Your task to perform on an android device: Open Yahoo.com Image 0: 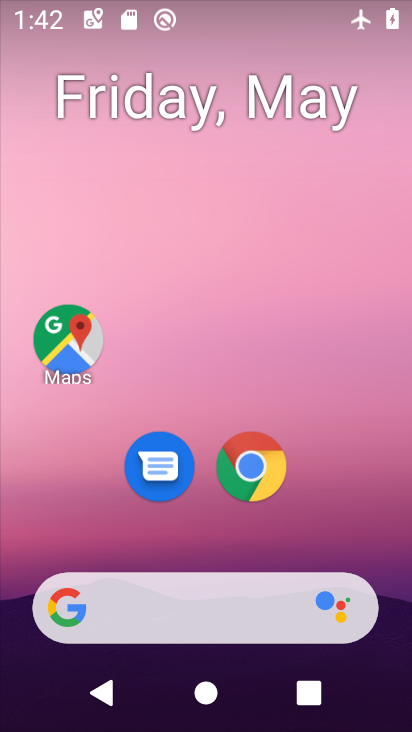
Step 0: drag from (353, 513) to (396, 11)
Your task to perform on an android device: Open Yahoo.com Image 1: 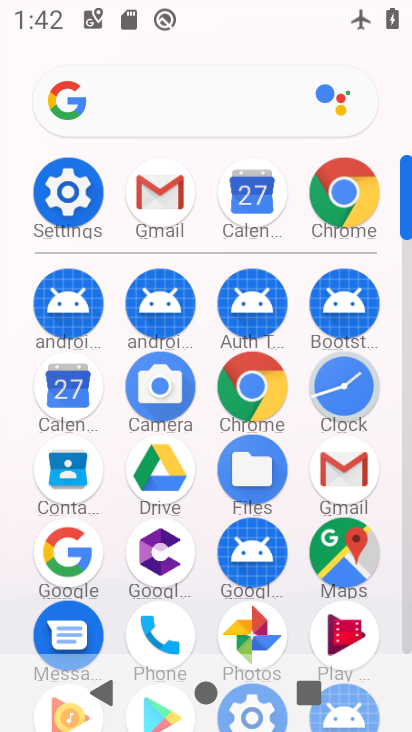
Step 1: click (351, 201)
Your task to perform on an android device: Open Yahoo.com Image 2: 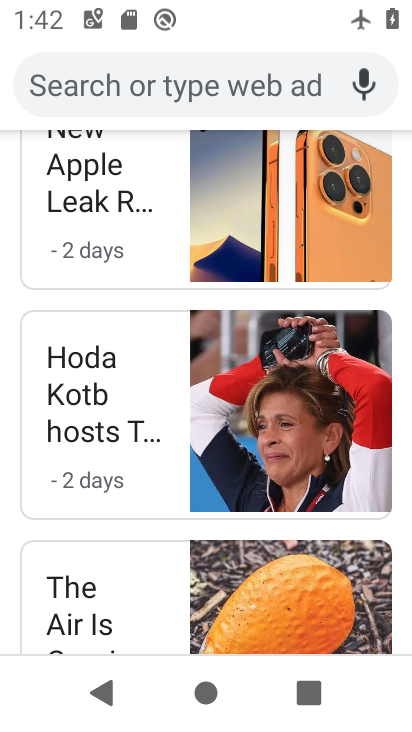
Step 2: drag from (108, 173) to (122, 640)
Your task to perform on an android device: Open Yahoo.com Image 3: 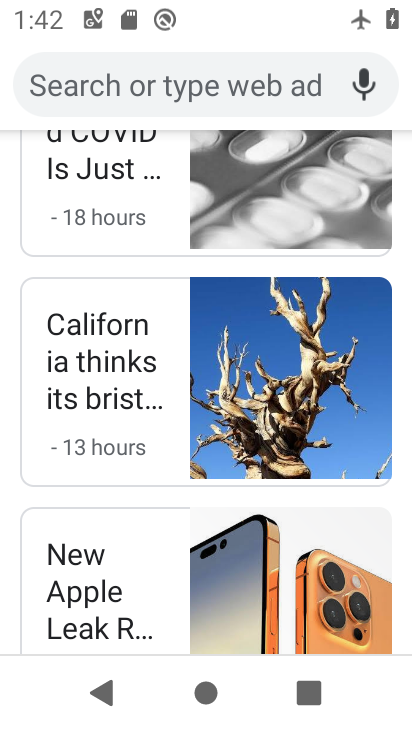
Step 3: drag from (169, 175) to (124, 656)
Your task to perform on an android device: Open Yahoo.com Image 4: 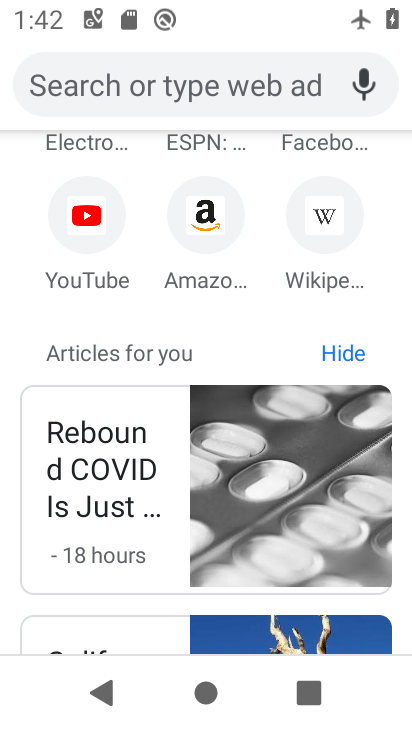
Step 4: drag from (172, 380) to (178, 625)
Your task to perform on an android device: Open Yahoo.com Image 5: 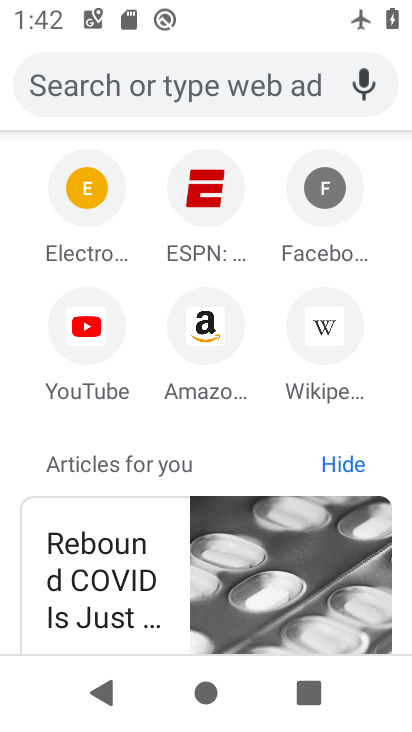
Step 5: drag from (132, 403) to (132, 680)
Your task to perform on an android device: Open Yahoo.com Image 6: 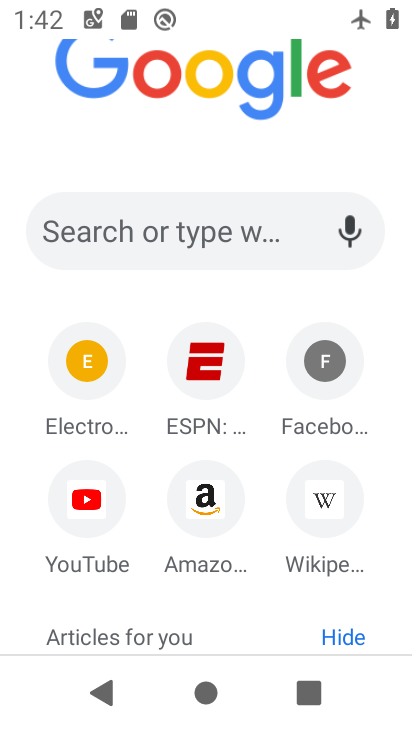
Step 6: click (220, 248)
Your task to perform on an android device: Open Yahoo.com Image 7: 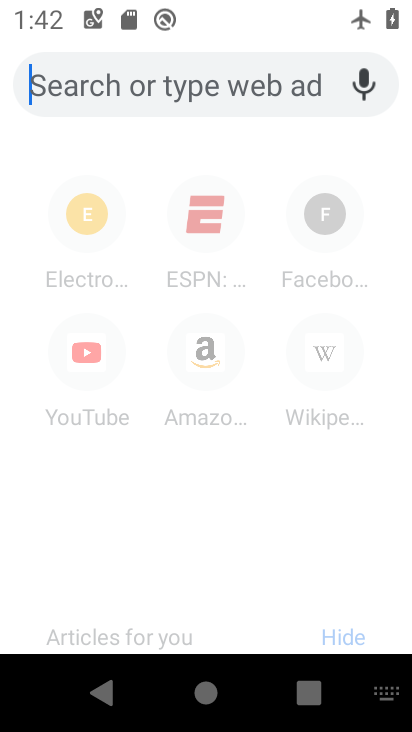
Step 7: type "yahoo"
Your task to perform on an android device: Open Yahoo.com Image 8: 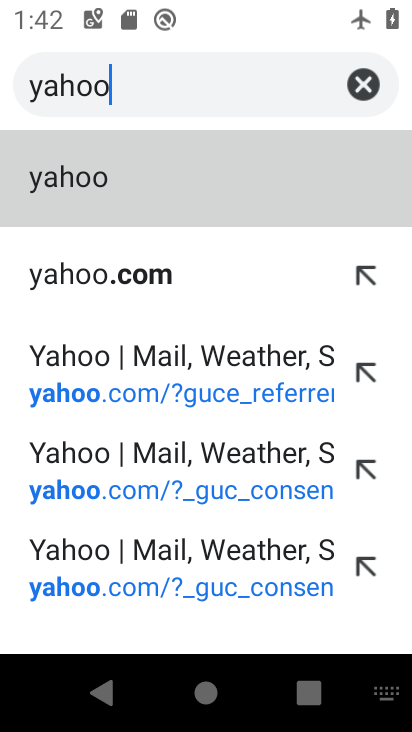
Step 8: click (152, 270)
Your task to perform on an android device: Open Yahoo.com Image 9: 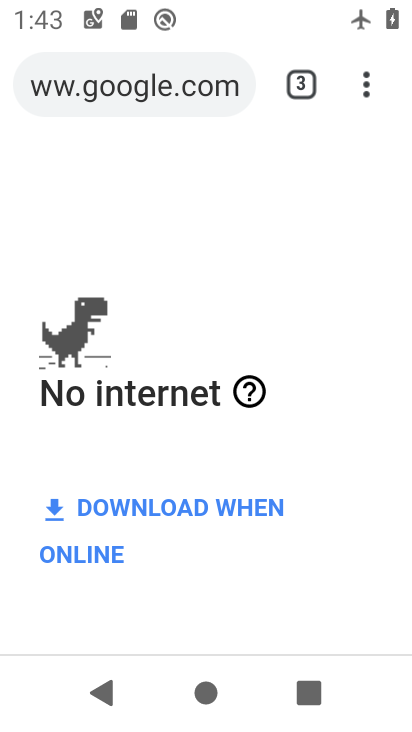
Step 9: task complete